Your task to perform on an android device: toggle improve location accuracy Image 0: 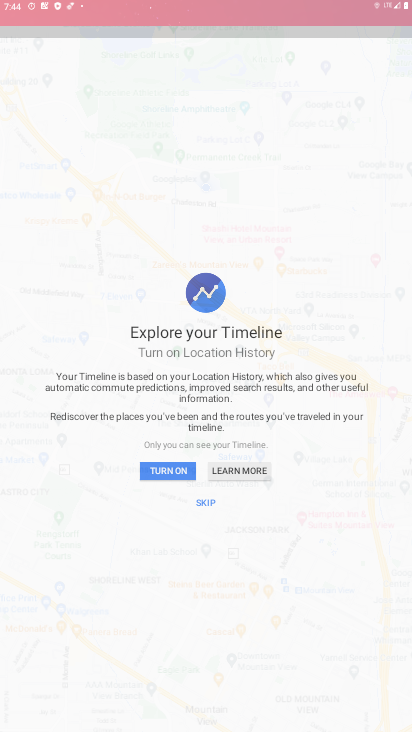
Step 0: drag from (359, 688) to (115, 35)
Your task to perform on an android device: toggle improve location accuracy Image 1: 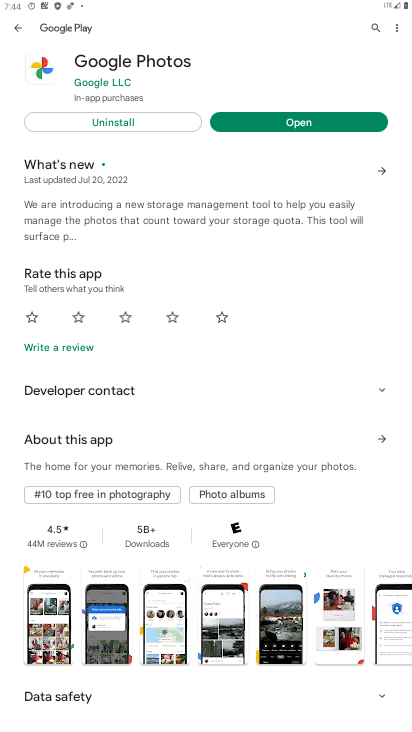
Step 1: press home button
Your task to perform on an android device: toggle improve location accuracy Image 2: 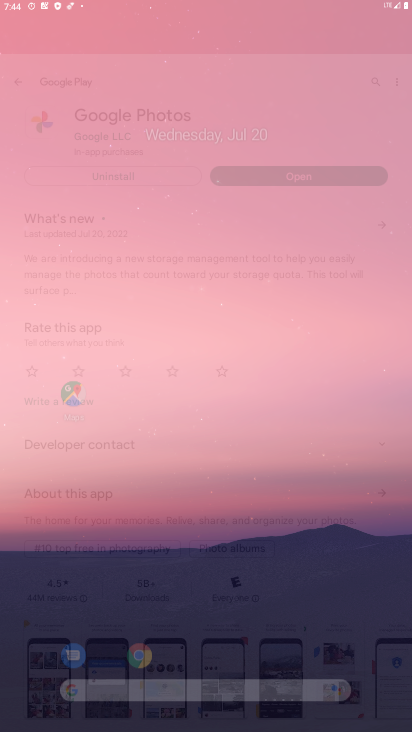
Step 2: drag from (386, 677) to (163, 23)
Your task to perform on an android device: toggle improve location accuracy Image 3: 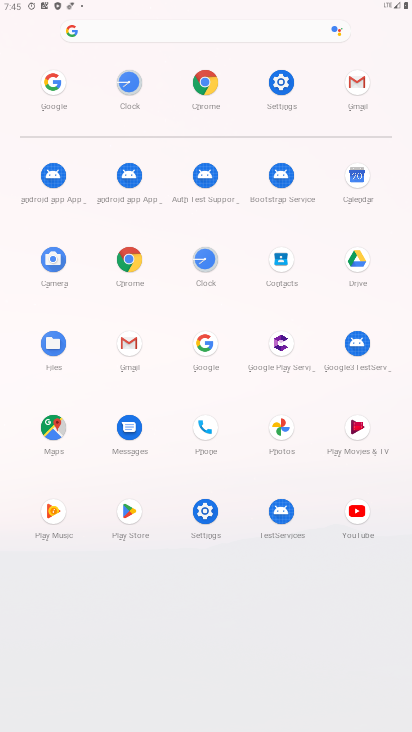
Step 3: click (200, 507)
Your task to perform on an android device: toggle improve location accuracy Image 4: 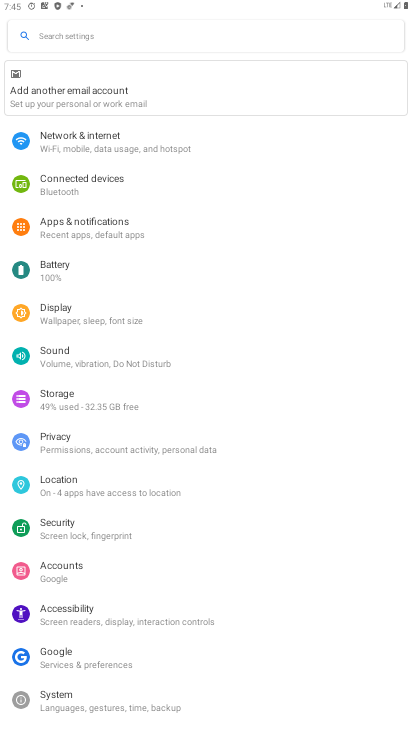
Step 4: click (74, 494)
Your task to perform on an android device: toggle improve location accuracy Image 5: 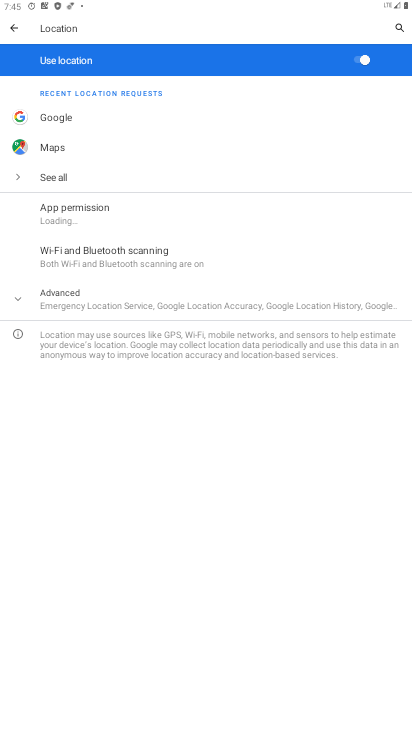
Step 5: click (92, 307)
Your task to perform on an android device: toggle improve location accuracy Image 6: 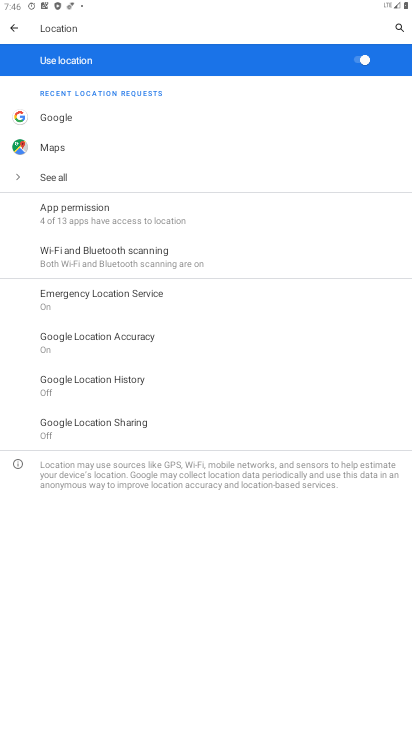
Step 6: click (96, 343)
Your task to perform on an android device: toggle improve location accuracy Image 7: 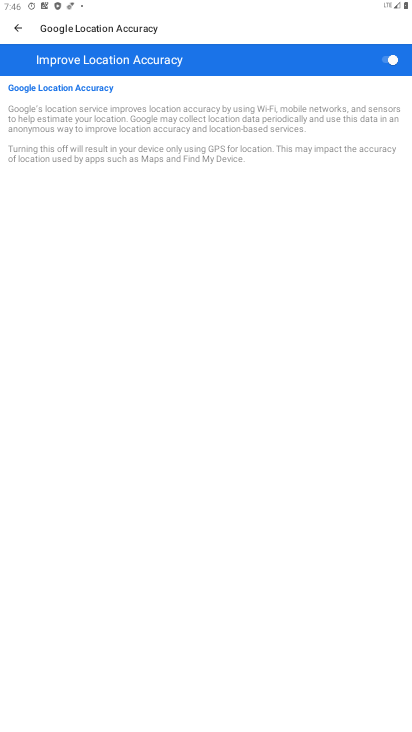
Step 7: click (381, 64)
Your task to perform on an android device: toggle improve location accuracy Image 8: 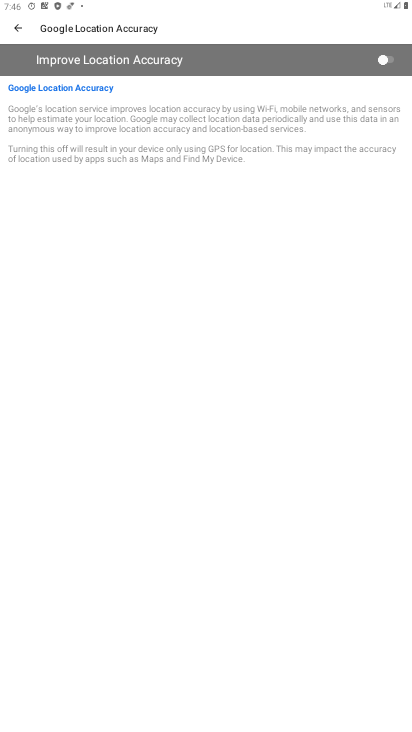
Step 8: task complete